Your task to perform on an android device: Do I have any events today? Image 0: 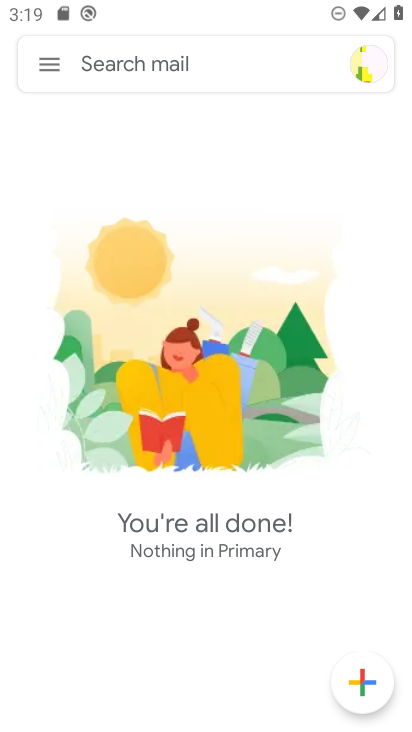
Step 0: press home button
Your task to perform on an android device: Do I have any events today? Image 1: 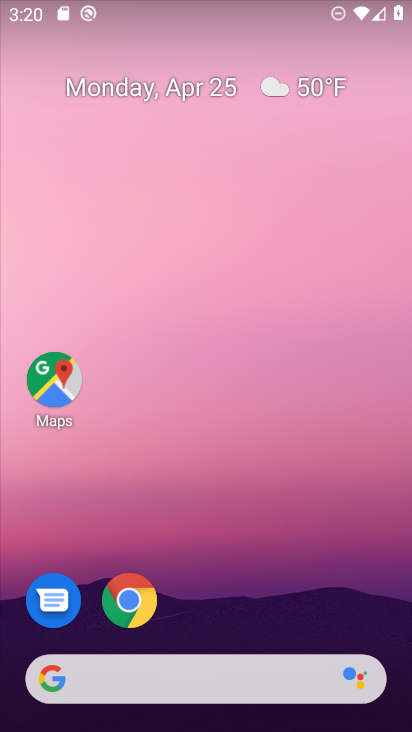
Step 1: drag from (210, 641) to (190, 37)
Your task to perform on an android device: Do I have any events today? Image 2: 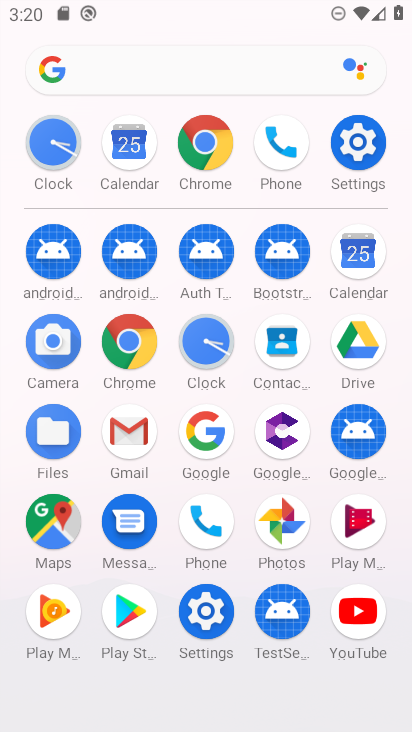
Step 2: click (359, 250)
Your task to perform on an android device: Do I have any events today? Image 3: 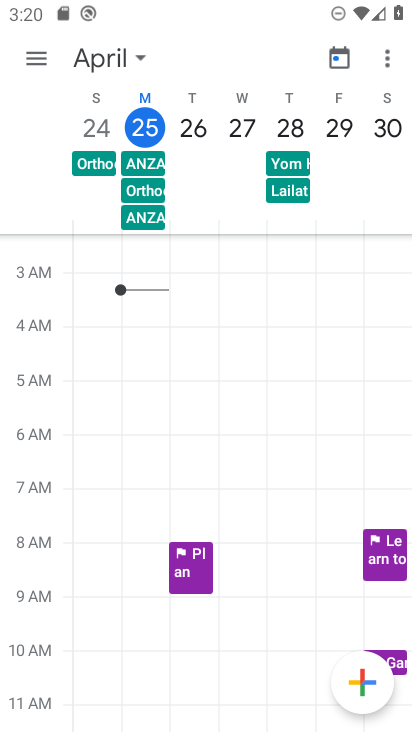
Step 3: task complete